Your task to perform on an android device: turn pop-ups on in chrome Image 0: 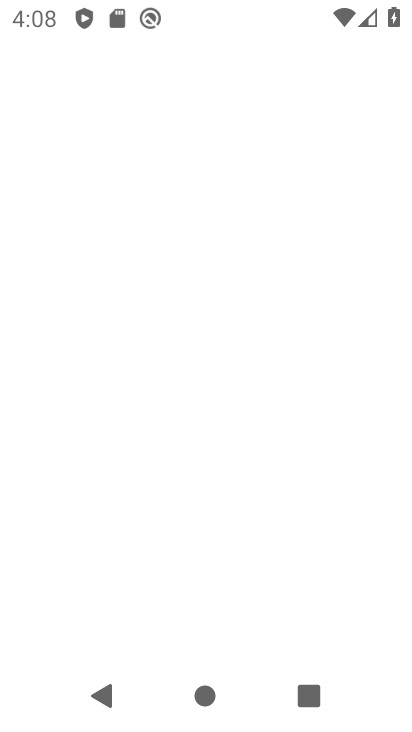
Step 0: press home button
Your task to perform on an android device: turn pop-ups on in chrome Image 1: 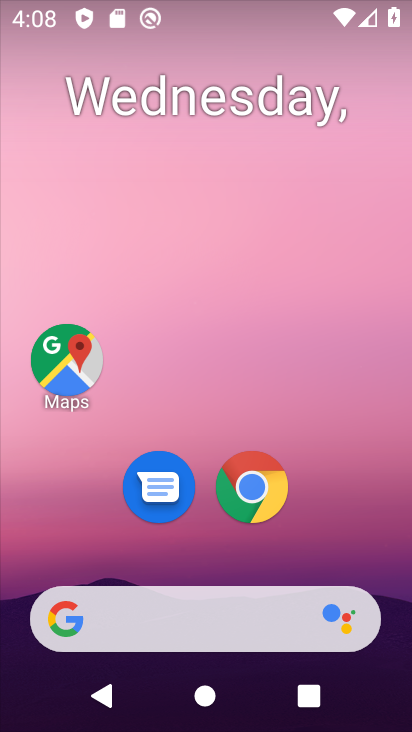
Step 1: click (250, 484)
Your task to perform on an android device: turn pop-ups on in chrome Image 2: 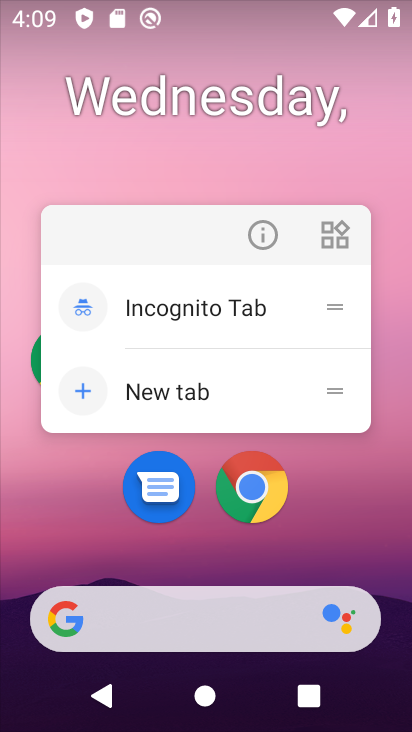
Step 2: click (249, 477)
Your task to perform on an android device: turn pop-ups on in chrome Image 3: 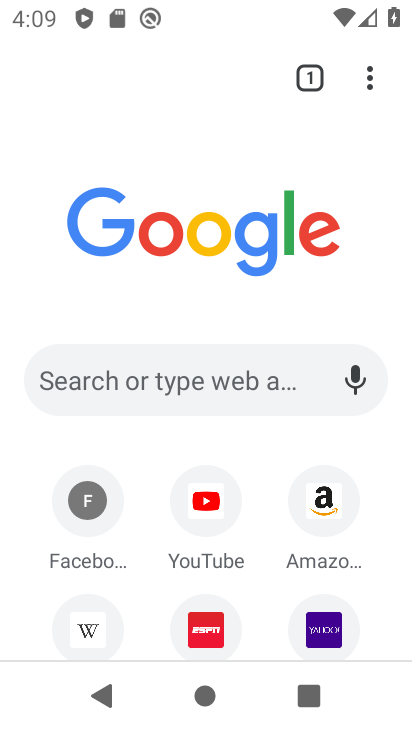
Step 3: click (367, 72)
Your task to perform on an android device: turn pop-ups on in chrome Image 4: 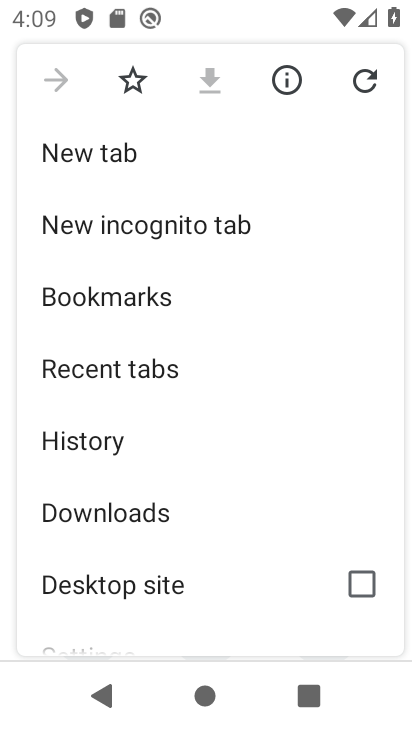
Step 4: drag from (195, 596) to (271, 98)
Your task to perform on an android device: turn pop-ups on in chrome Image 5: 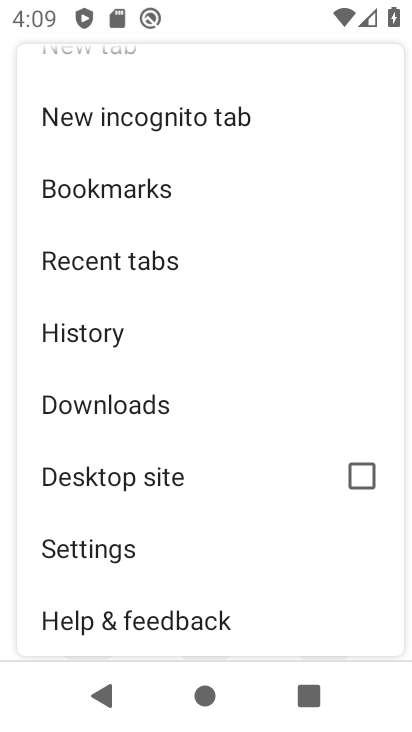
Step 5: click (139, 541)
Your task to perform on an android device: turn pop-ups on in chrome Image 6: 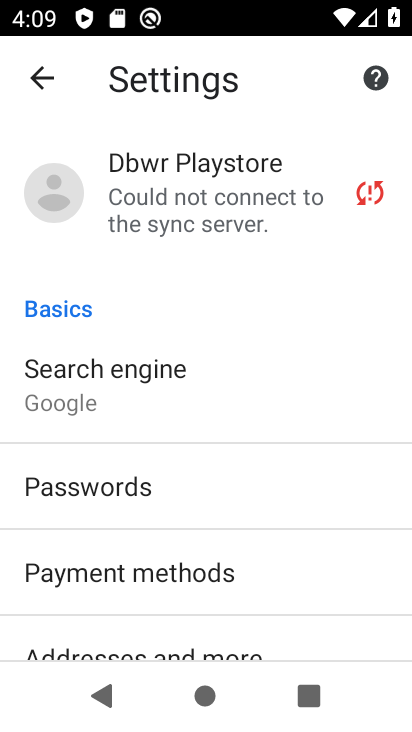
Step 6: drag from (224, 625) to (254, 93)
Your task to perform on an android device: turn pop-ups on in chrome Image 7: 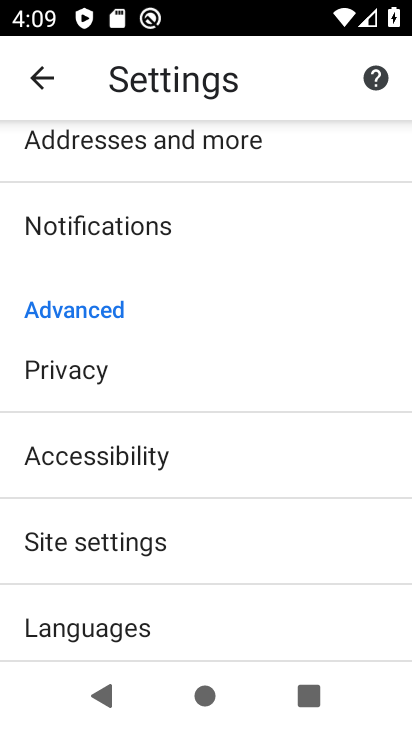
Step 7: click (180, 539)
Your task to perform on an android device: turn pop-ups on in chrome Image 8: 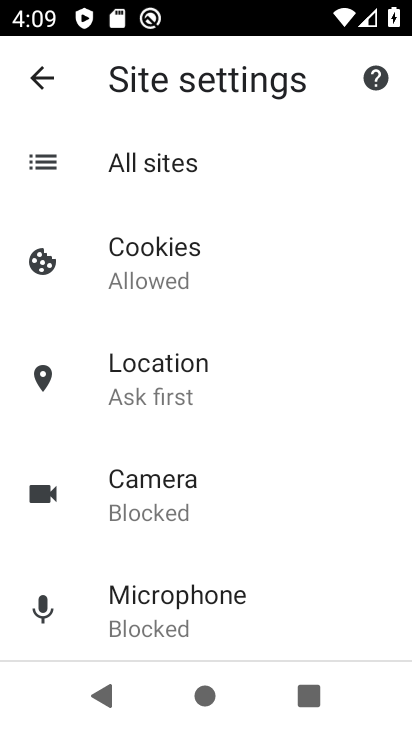
Step 8: drag from (210, 623) to (245, 121)
Your task to perform on an android device: turn pop-ups on in chrome Image 9: 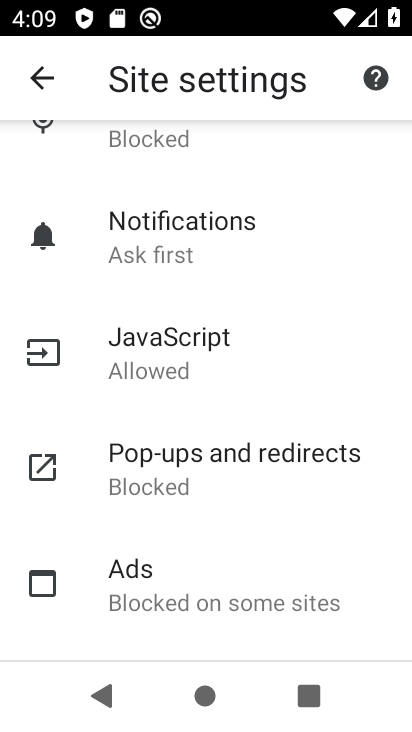
Step 9: click (204, 479)
Your task to perform on an android device: turn pop-ups on in chrome Image 10: 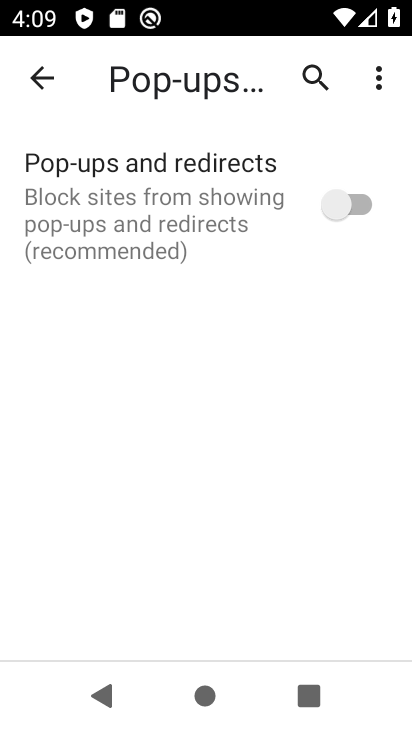
Step 10: click (350, 202)
Your task to perform on an android device: turn pop-ups on in chrome Image 11: 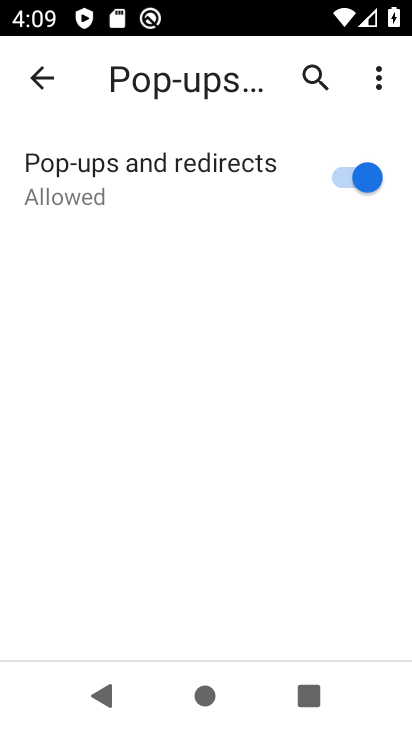
Step 11: task complete